Your task to perform on an android device: add a contact in the contacts app Image 0: 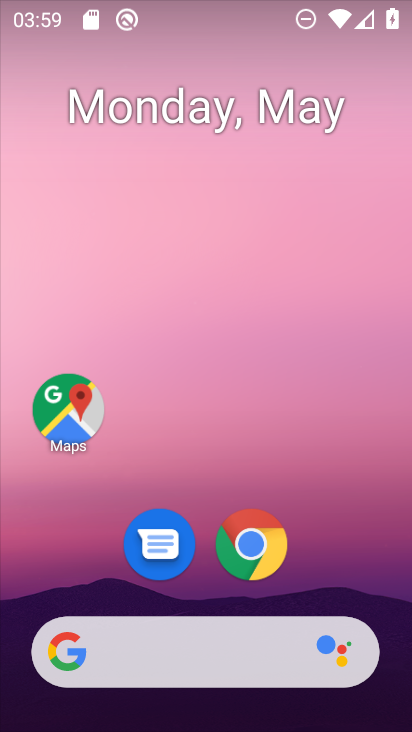
Step 0: drag from (378, 581) to (370, 246)
Your task to perform on an android device: add a contact in the contacts app Image 1: 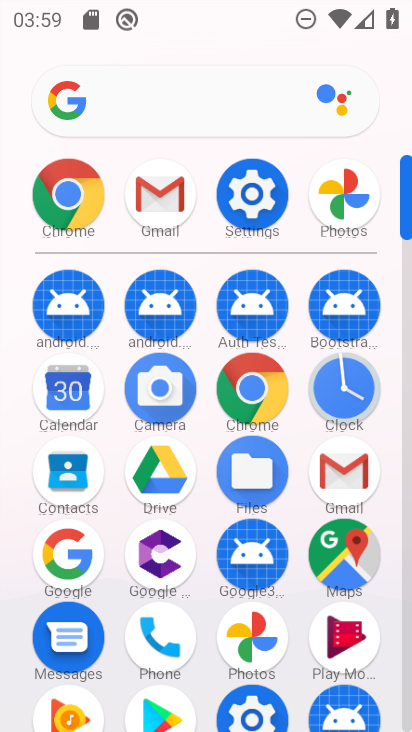
Step 1: click (90, 472)
Your task to perform on an android device: add a contact in the contacts app Image 2: 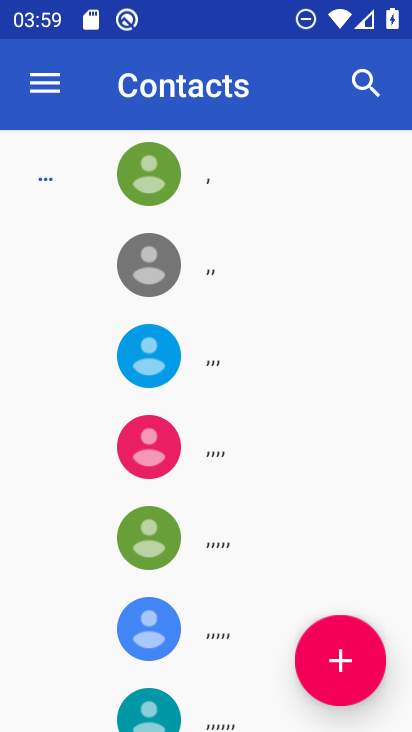
Step 2: click (340, 652)
Your task to perform on an android device: add a contact in the contacts app Image 3: 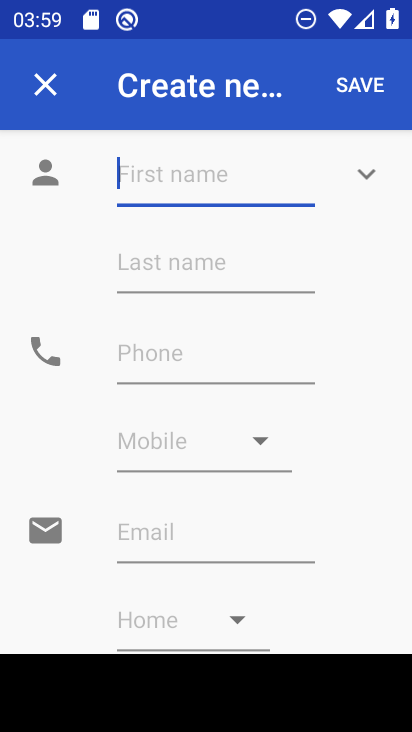
Step 3: click (246, 190)
Your task to perform on an android device: add a contact in the contacts app Image 4: 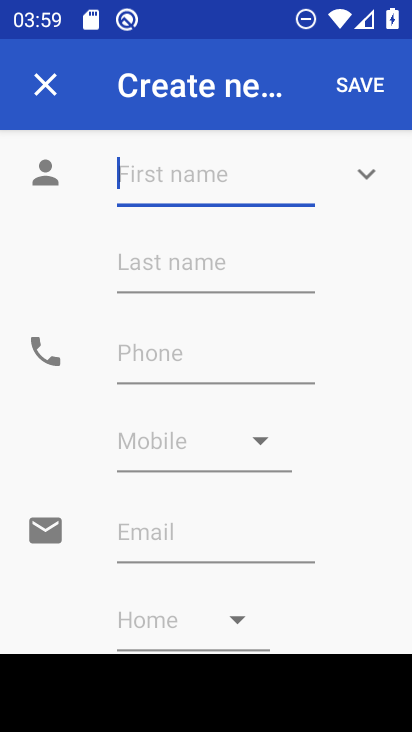
Step 4: type "mamo"
Your task to perform on an android device: add a contact in the contacts app Image 5: 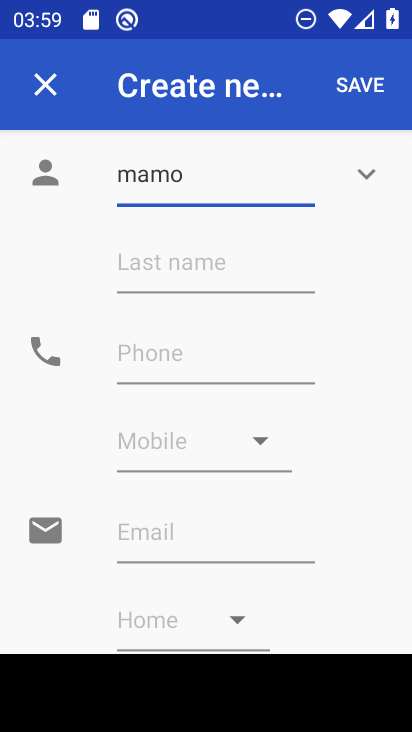
Step 5: click (300, 362)
Your task to perform on an android device: add a contact in the contacts app Image 6: 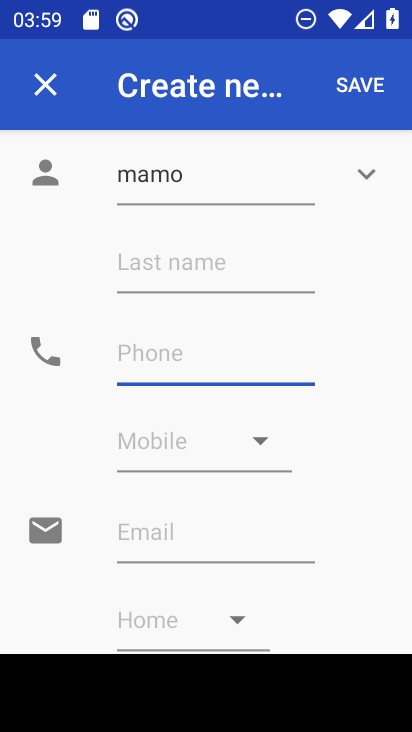
Step 6: type "123456789"
Your task to perform on an android device: add a contact in the contacts app Image 7: 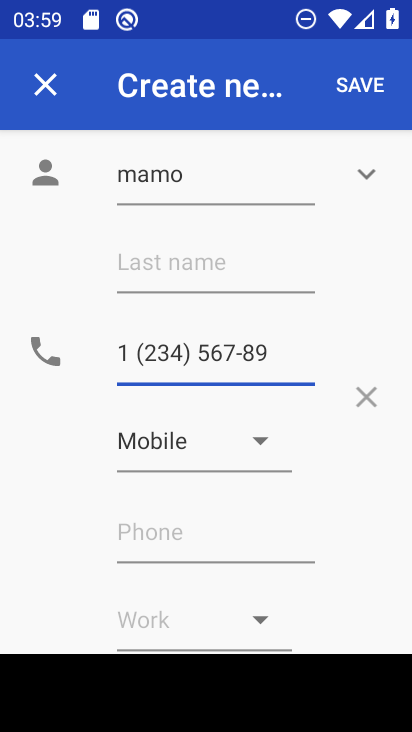
Step 7: click (363, 86)
Your task to perform on an android device: add a contact in the contacts app Image 8: 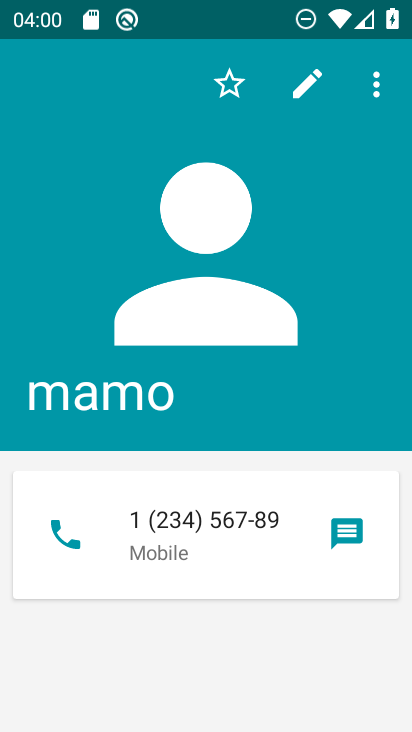
Step 8: task complete